Your task to perform on an android device: Go to eBay Image 0: 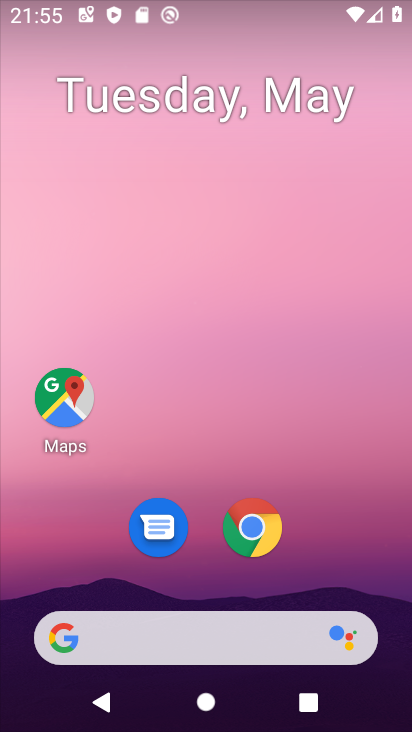
Step 0: click (251, 527)
Your task to perform on an android device: Go to eBay Image 1: 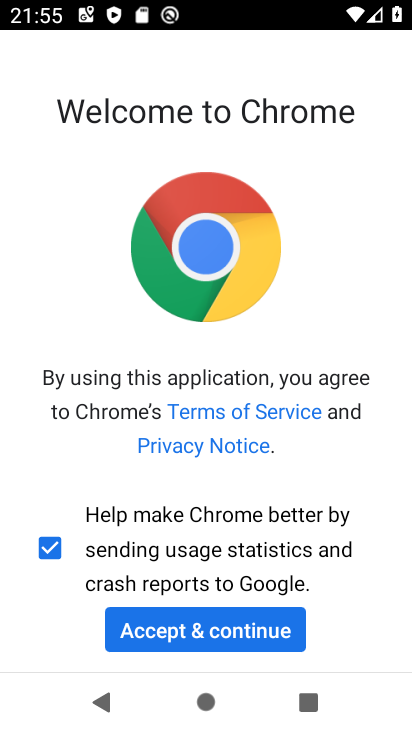
Step 1: click (143, 634)
Your task to perform on an android device: Go to eBay Image 2: 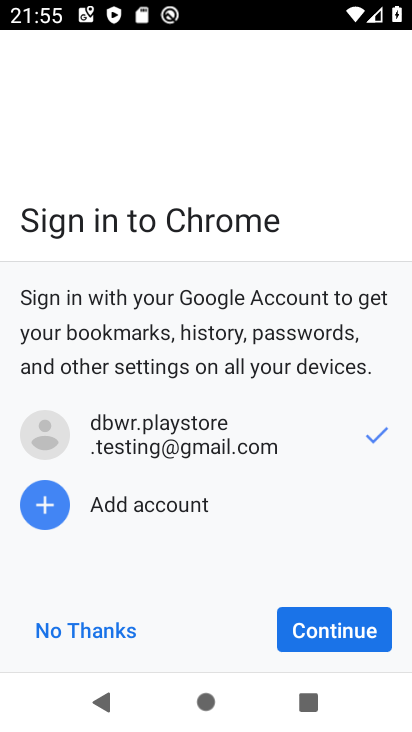
Step 2: click (316, 633)
Your task to perform on an android device: Go to eBay Image 3: 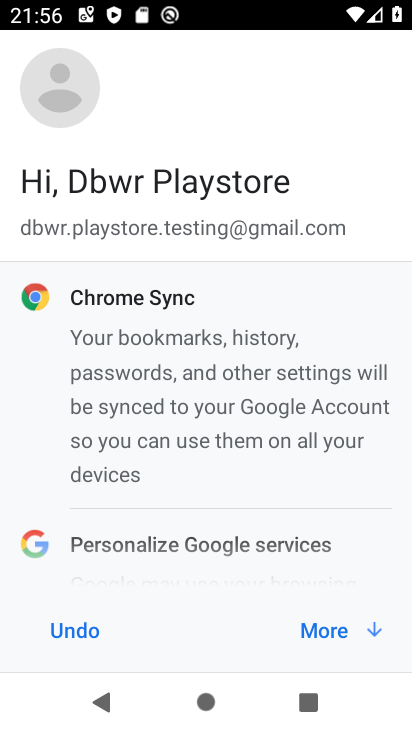
Step 3: click (333, 620)
Your task to perform on an android device: Go to eBay Image 4: 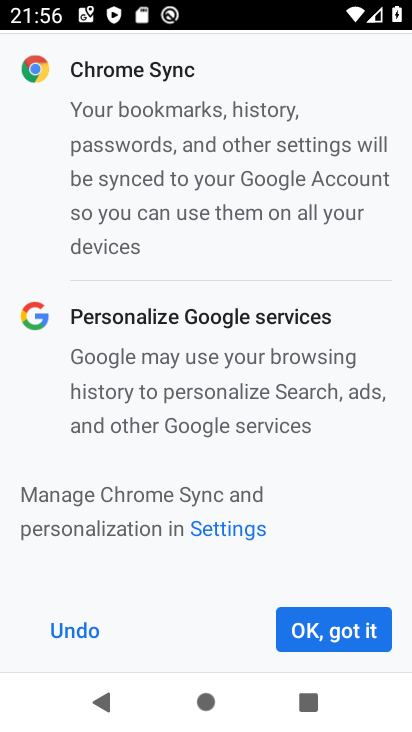
Step 4: click (317, 619)
Your task to perform on an android device: Go to eBay Image 5: 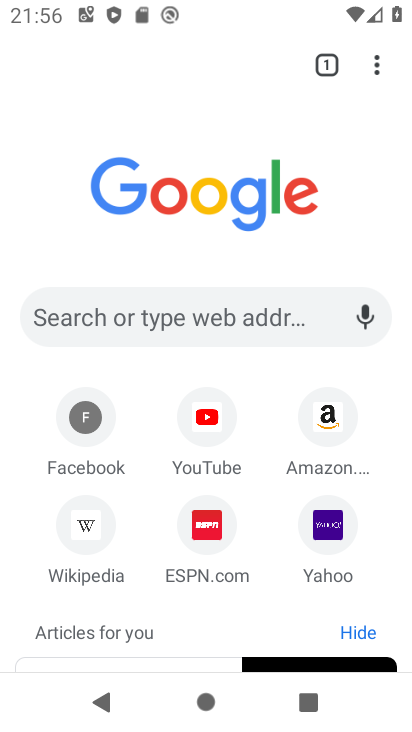
Step 5: click (183, 310)
Your task to perform on an android device: Go to eBay Image 6: 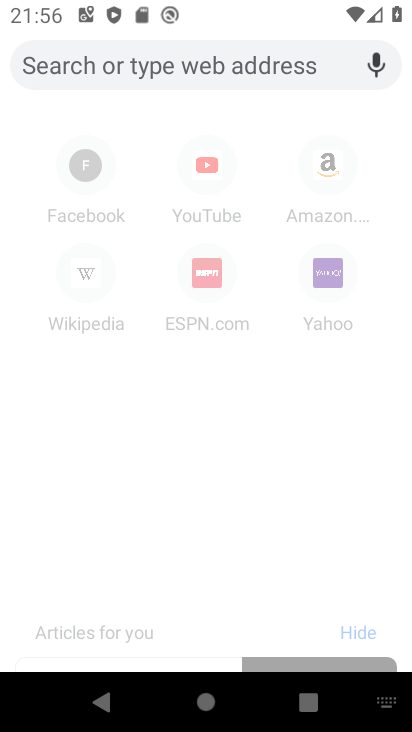
Step 6: type "ebay"
Your task to perform on an android device: Go to eBay Image 7: 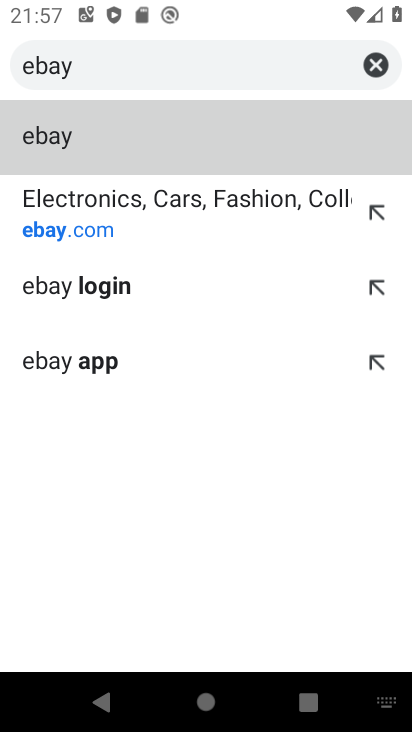
Step 7: click (44, 120)
Your task to perform on an android device: Go to eBay Image 8: 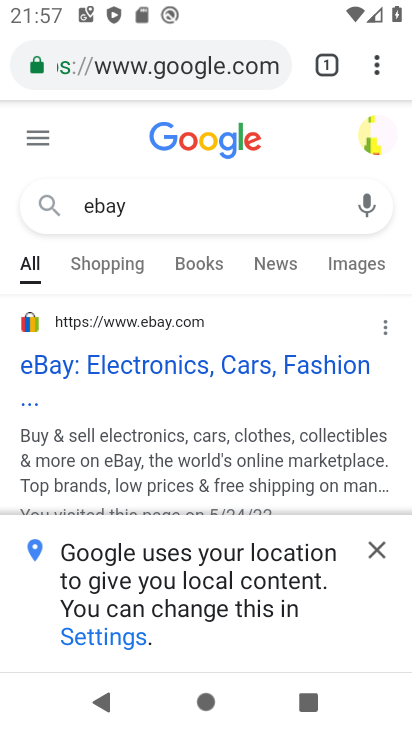
Step 8: click (42, 375)
Your task to perform on an android device: Go to eBay Image 9: 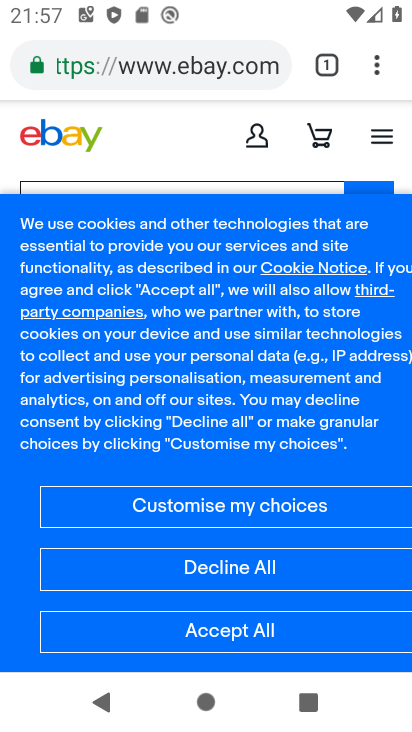
Step 9: task complete